Your task to perform on an android device: Show me the alarms in the clock app Image 0: 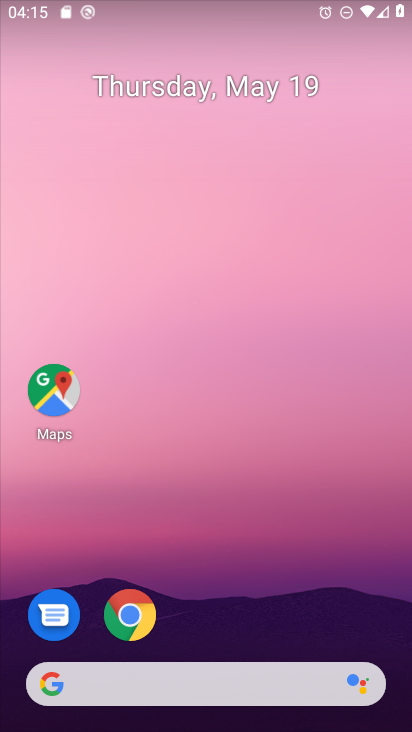
Step 0: drag from (245, 637) to (233, 27)
Your task to perform on an android device: Show me the alarms in the clock app Image 1: 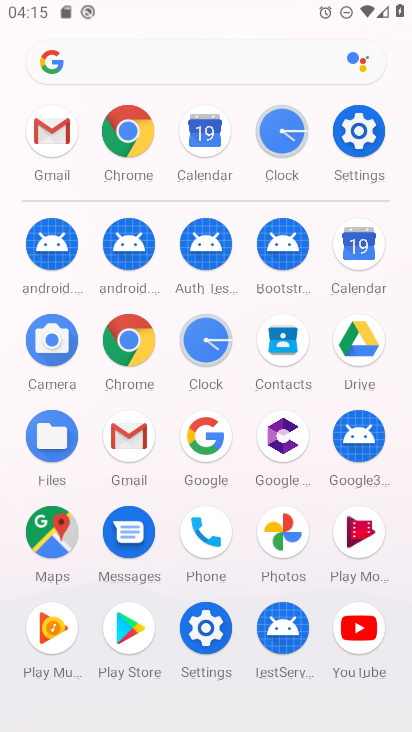
Step 1: click (211, 345)
Your task to perform on an android device: Show me the alarms in the clock app Image 2: 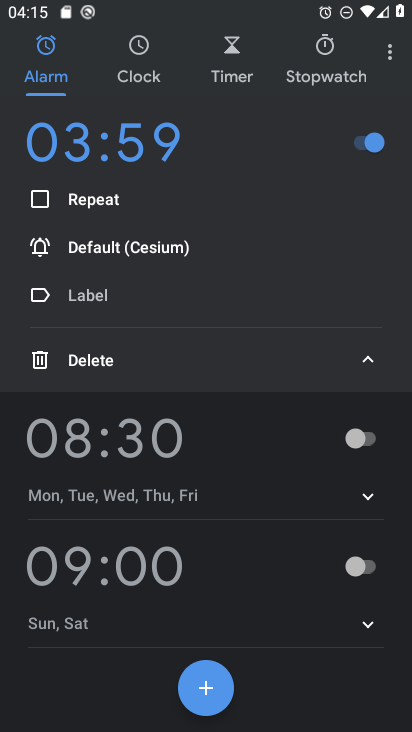
Step 2: task complete